Your task to perform on an android device: Search for razer blade on ebay.com, select the first entry, add it to the cart, then select checkout. Image 0: 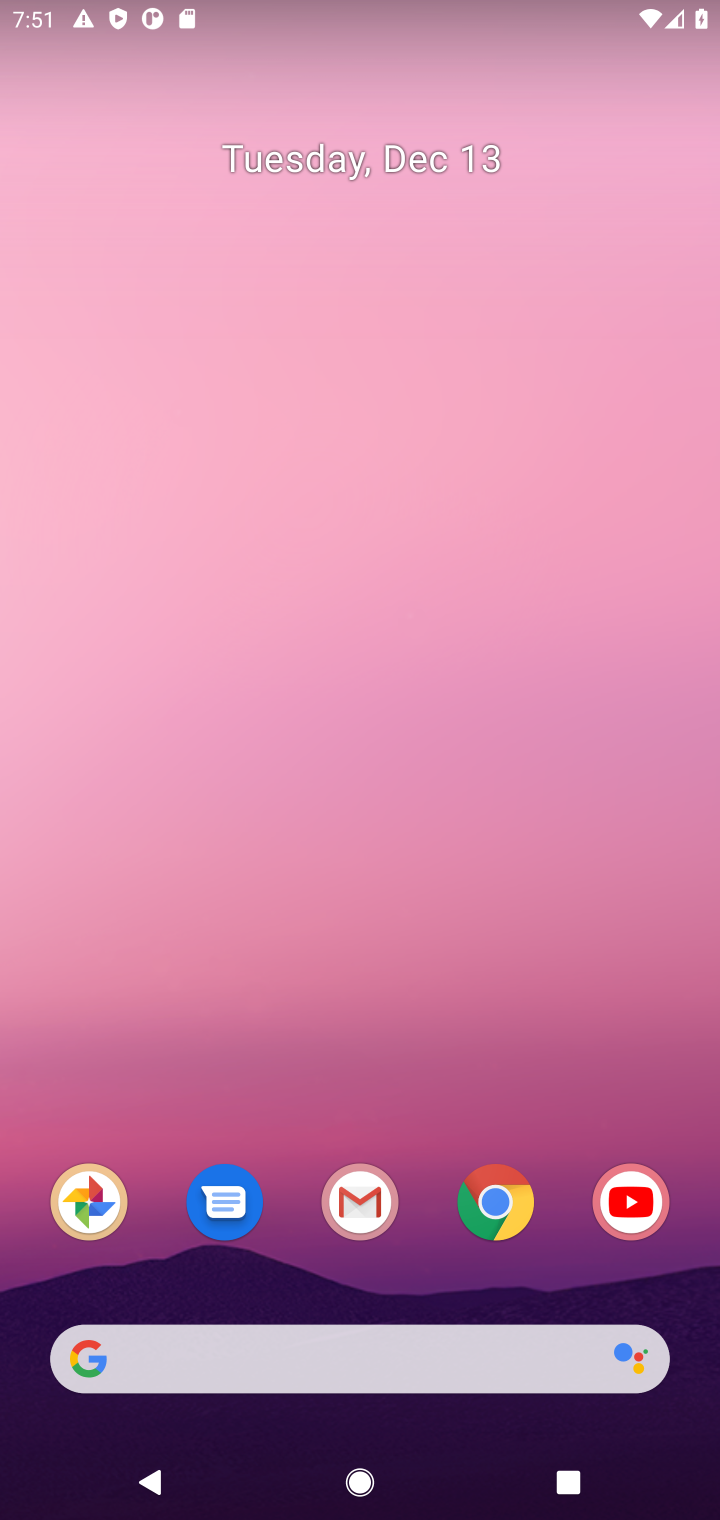
Step 0: click (486, 1204)
Your task to perform on an android device: Search for razer blade on ebay.com, select the first entry, add it to the cart, then select checkout. Image 1: 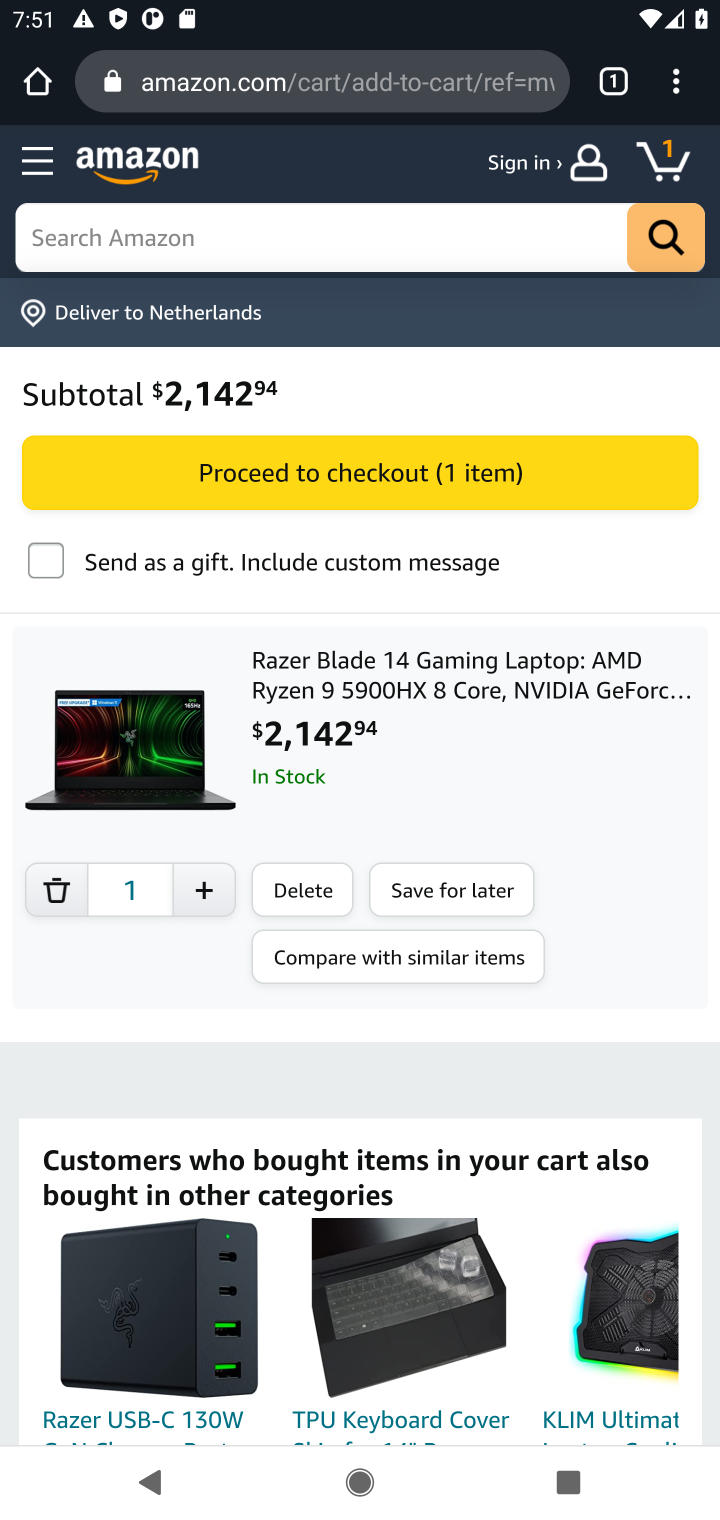
Step 1: click (203, 80)
Your task to perform on an android device: Search for razer blade on ebay.com, select the first entry, add it to the cart, then select checkout. Image 2: 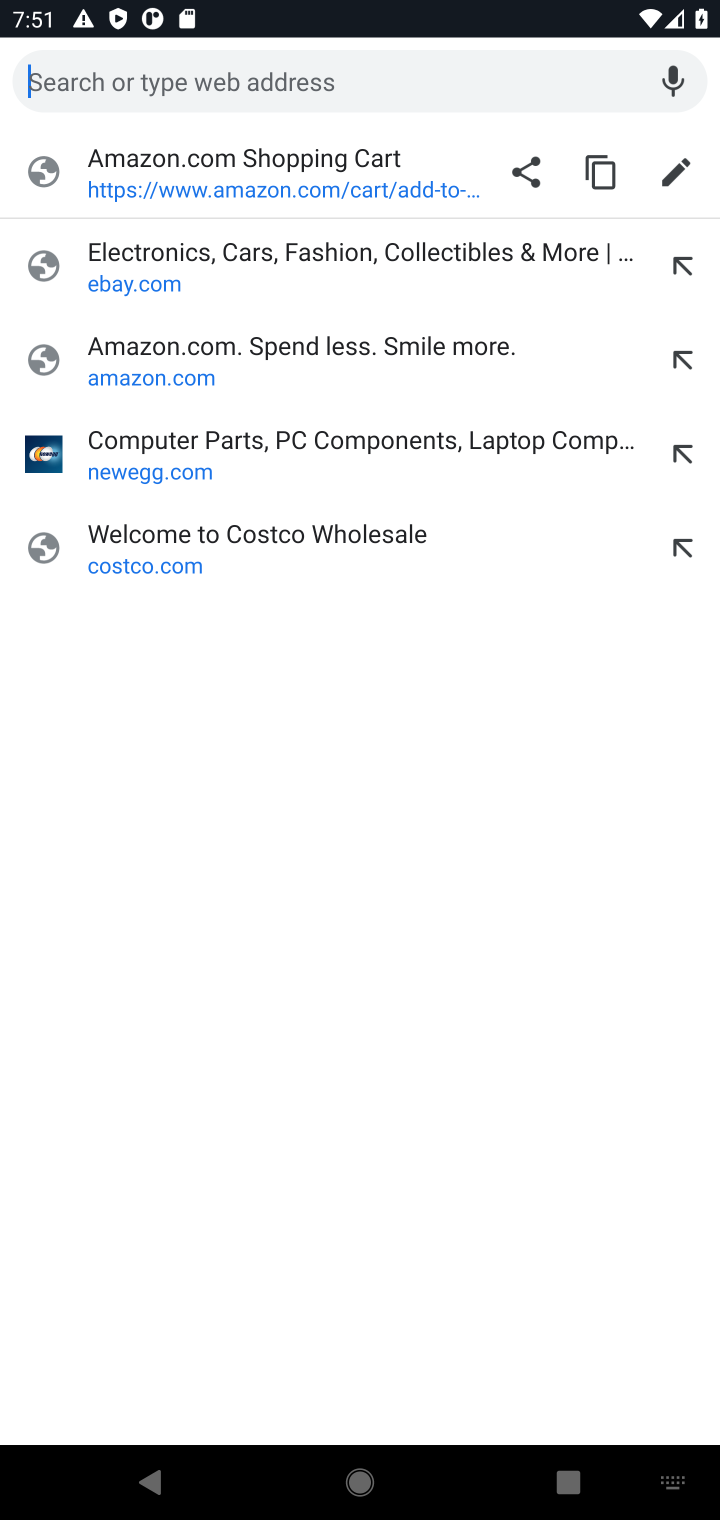
Step 2: click (133, 283)
Your task to perform on an android device: Search for razer blade on ebay.com, select the first entry, add it to the cart, then select checkout. Image 3: 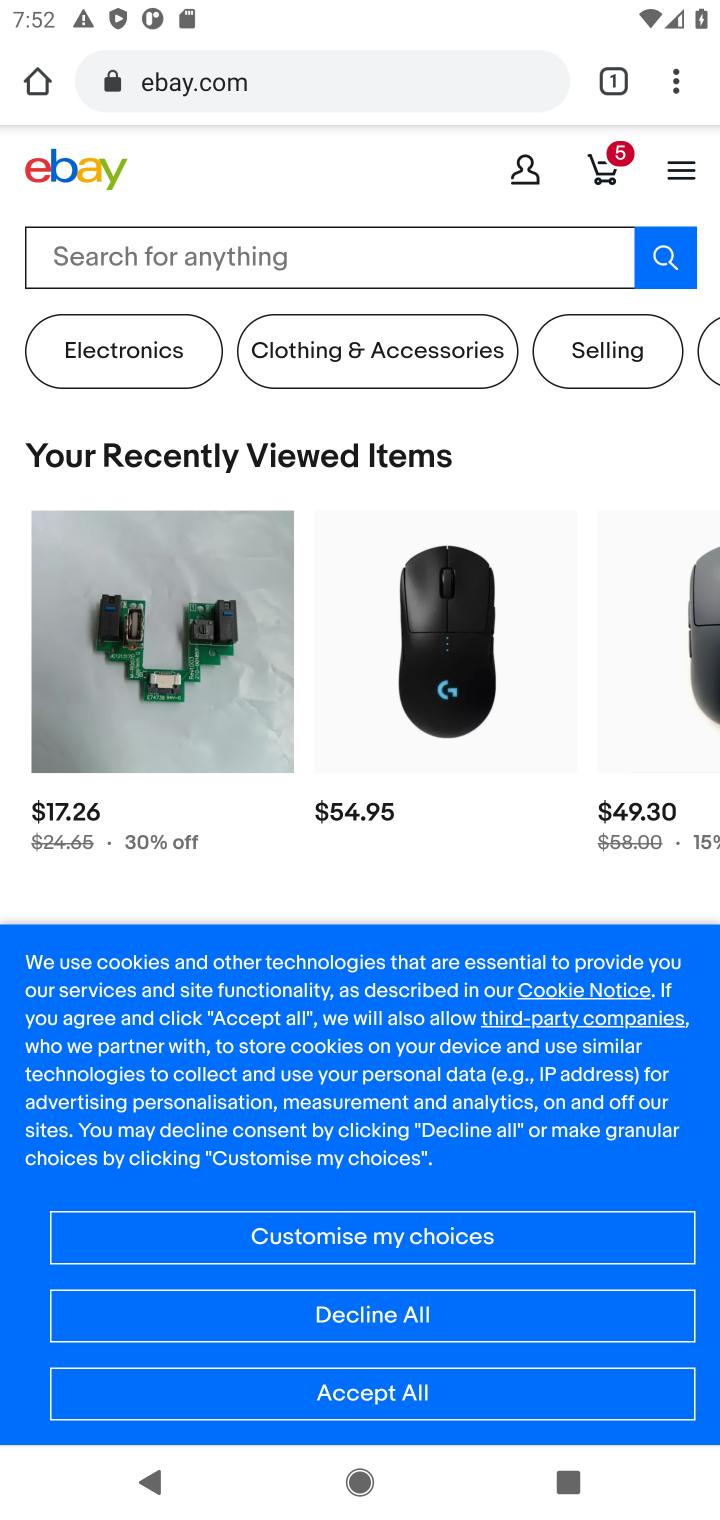
Step 3: click (194, 262)
Your task to perform on an android device: Search for razer blade on ebay.com, select the first entry, add it to the cart, then select checkout. Image 4: 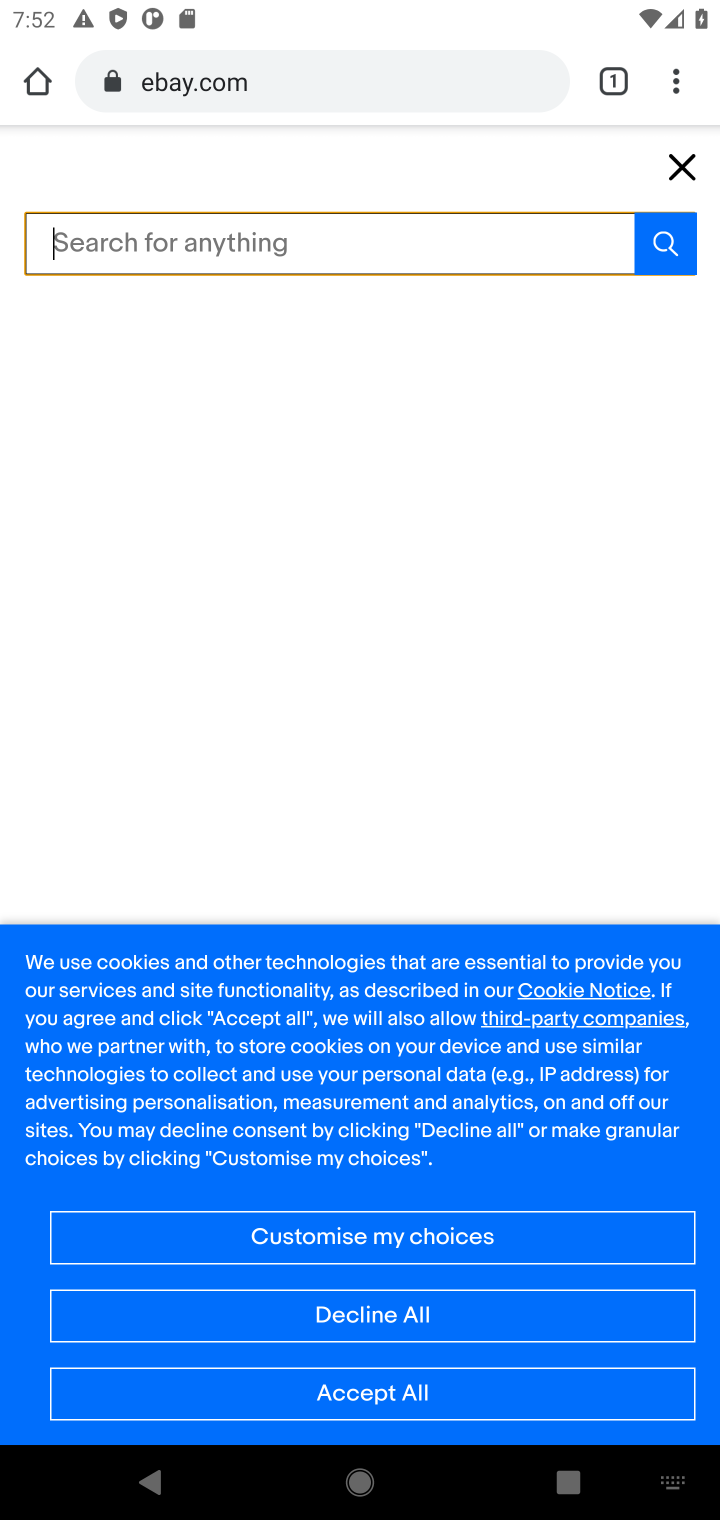
Step 4: type "razer blade"
Your task to perform on an android device: Search for razer blade on ebay.com, select the first entry, add it to the cart, then select checkout. Image 5: 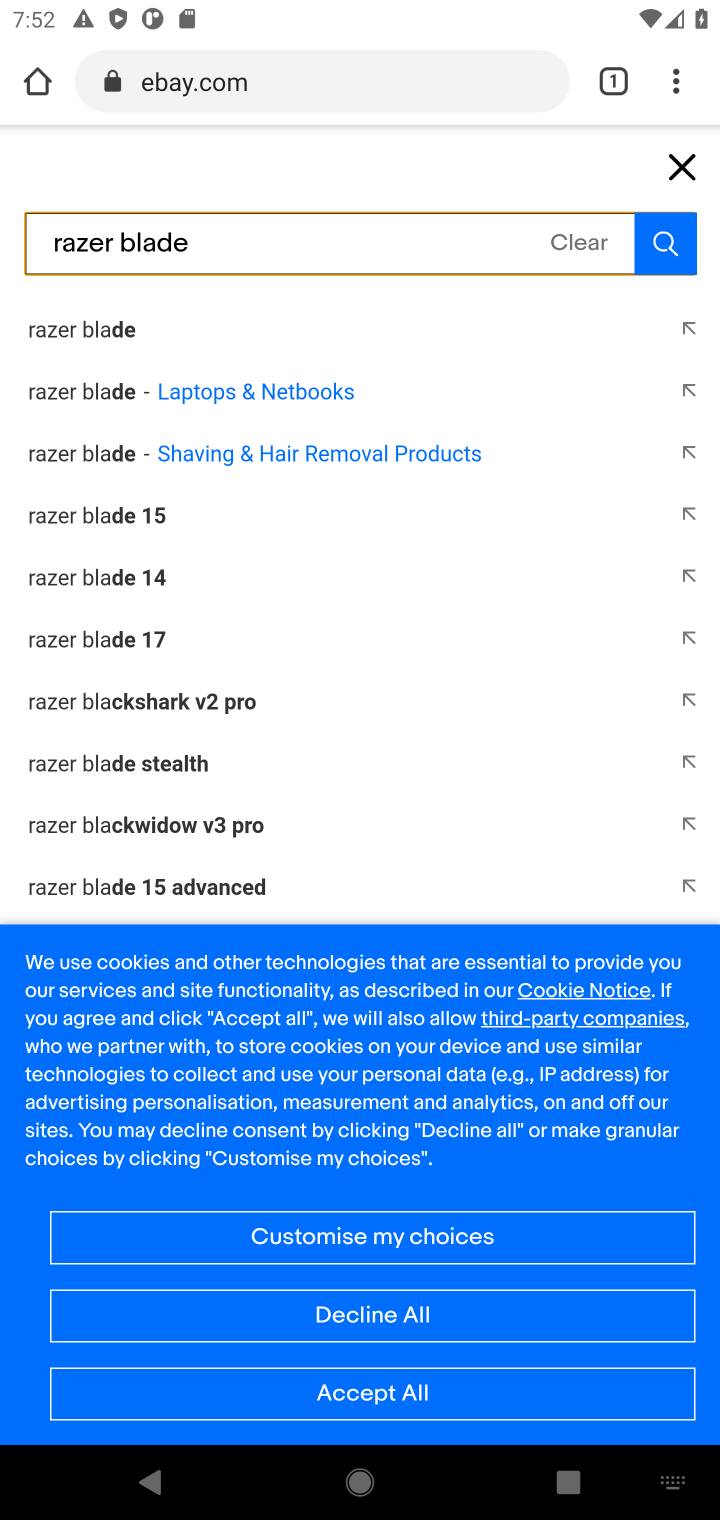
Step 5: click (108, 342)
Your task to perform on an android device: Search for razer blade on ebay.com, select the first entry, add it to the cart, then select checkout. Image 6: 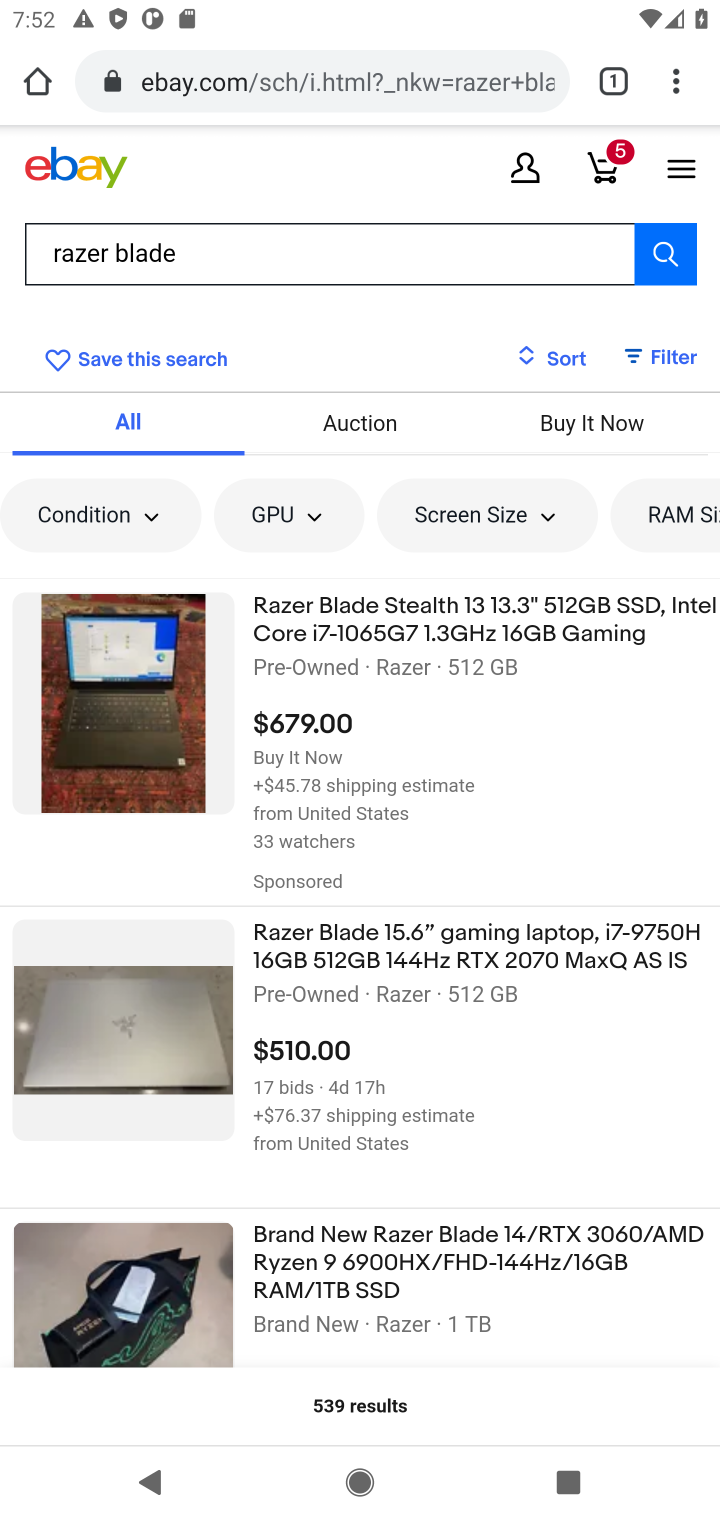
Step 6: click (340, 628)
Your task to perform on an android device: Search for razer blade on ebay.com, select the first entry, add it to the cart, then select checkout. Image 7: 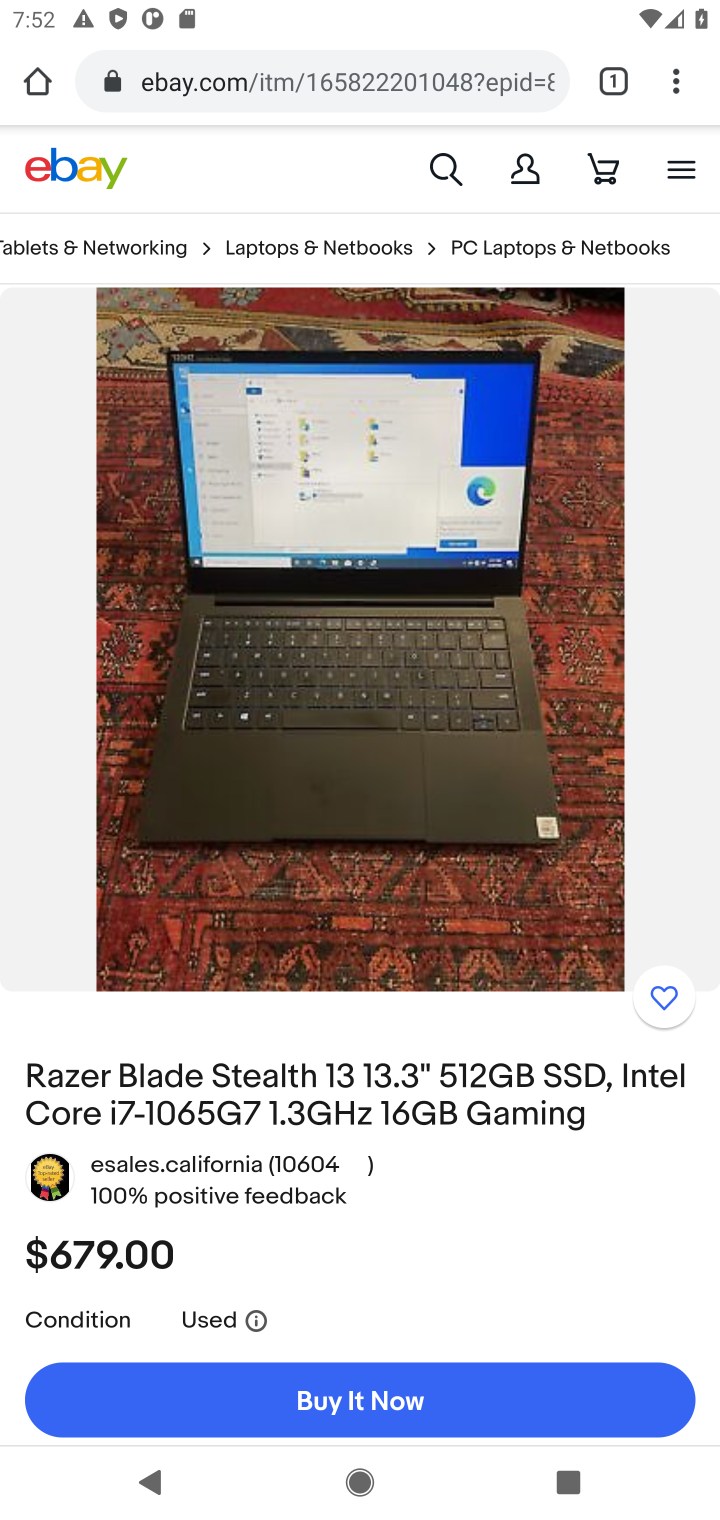
Step 7: drag from (288, 1241) to (322, 711)
Your task to perform on an android device: Search for razer blade on ebay.com, select the first entry, add it to the cart, then select checkout. Image 8: 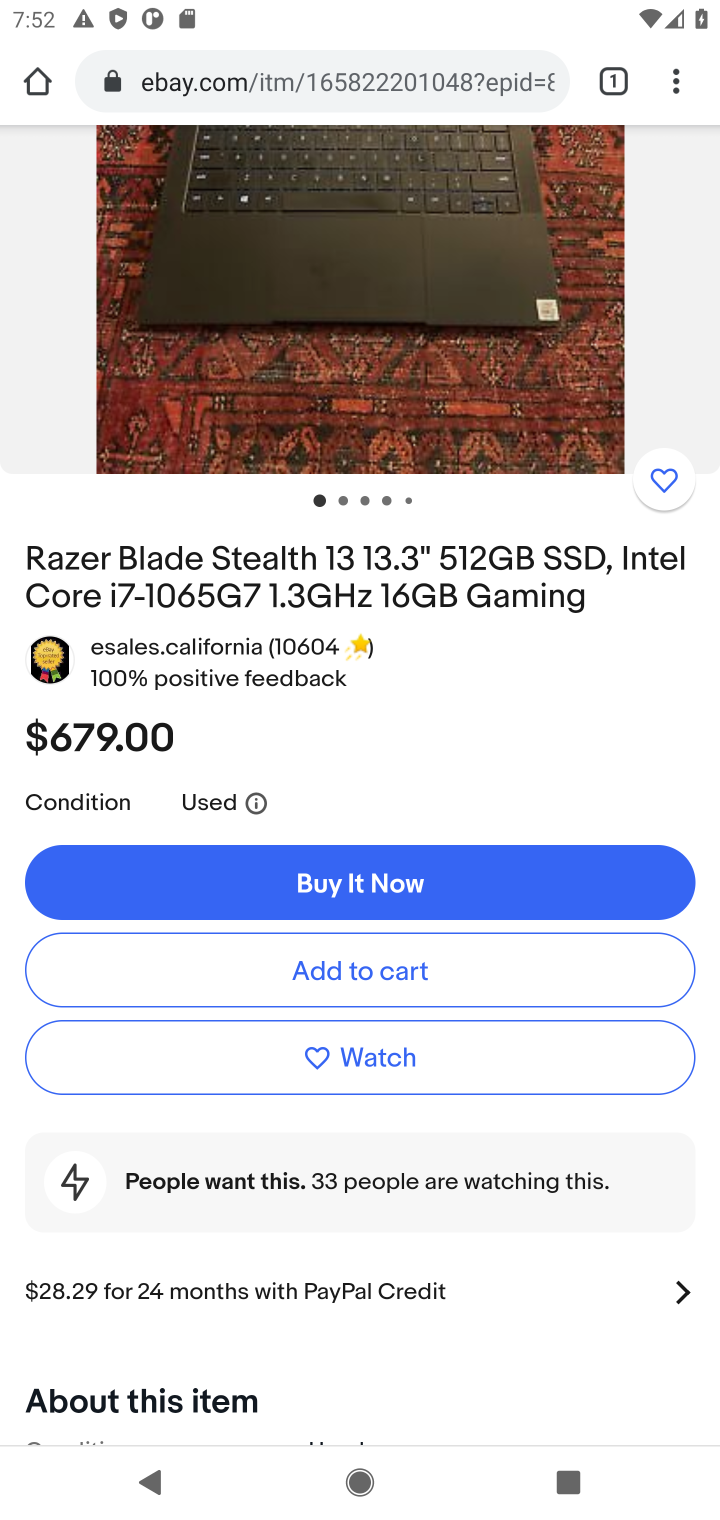
Step 8: click (316, 971)
Your task to perform on an android device: Search for razer blade on ebay.com, select the first entry, add it to the cart, then select checkout. Image 9: 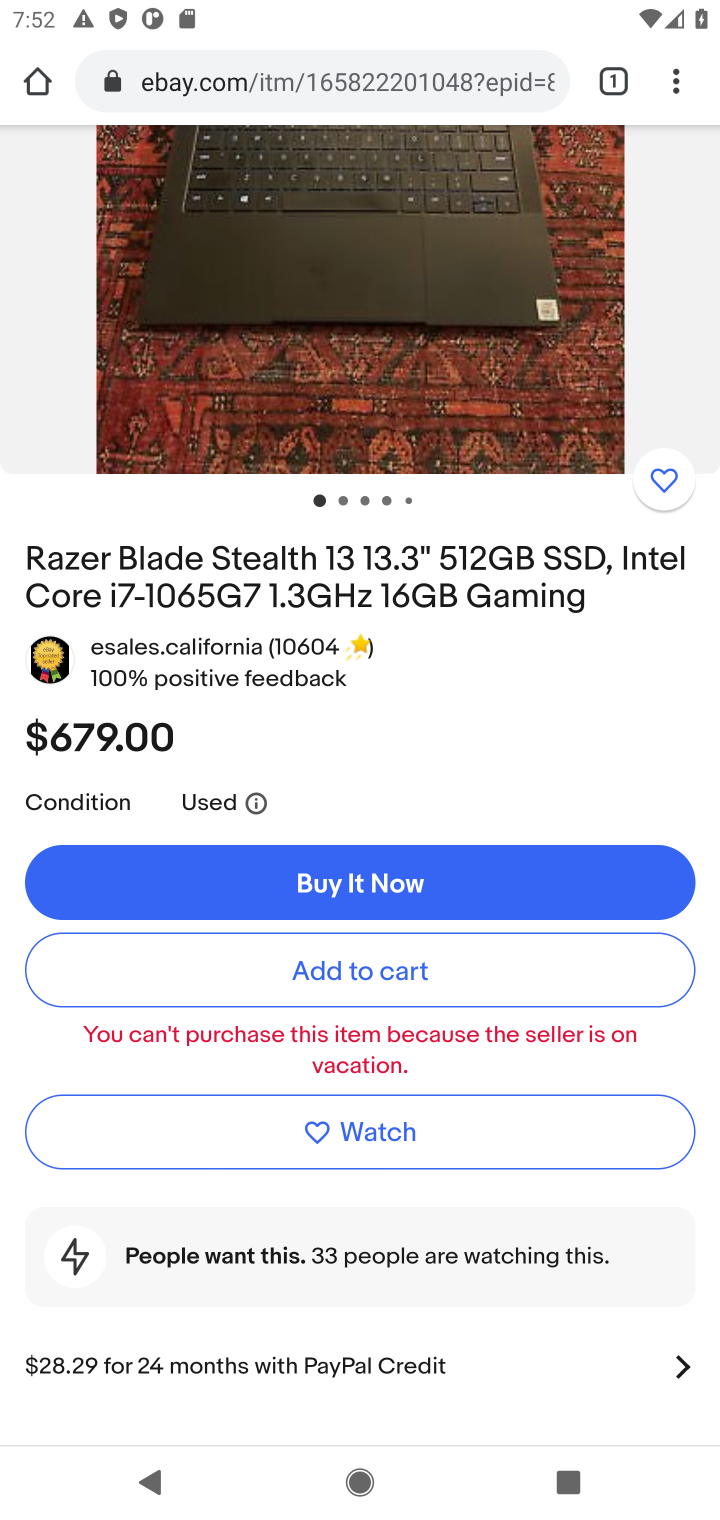
Step 9: task complete